Your task to perform on an android device: set the timer Image 0: 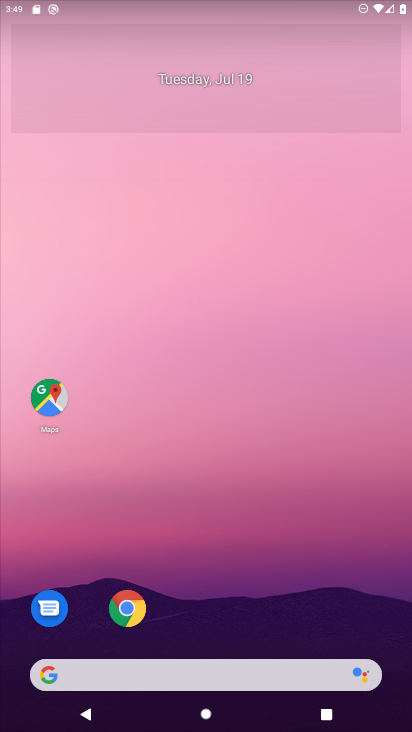
Step 0: drag from (272, 616) to (188, 17)
Your task to perform on an android device: set the timer Image 1: 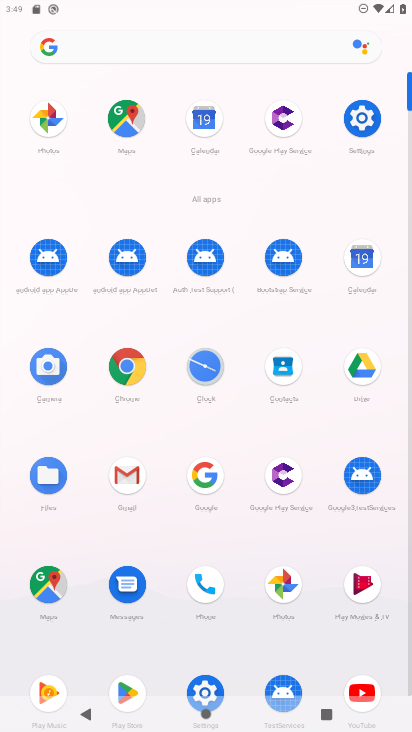
Step 1: click (209, 359)
Your task to perform on an android device: set the timer Image 2: 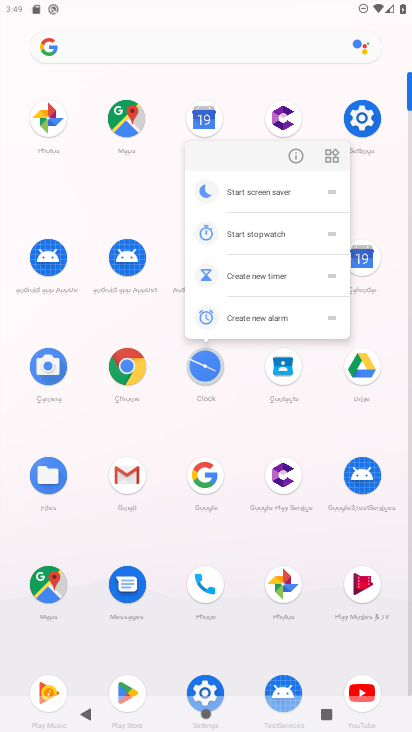
Step 2: click (210, 361)
Your task to perform on an android device: set the timer Image 3: 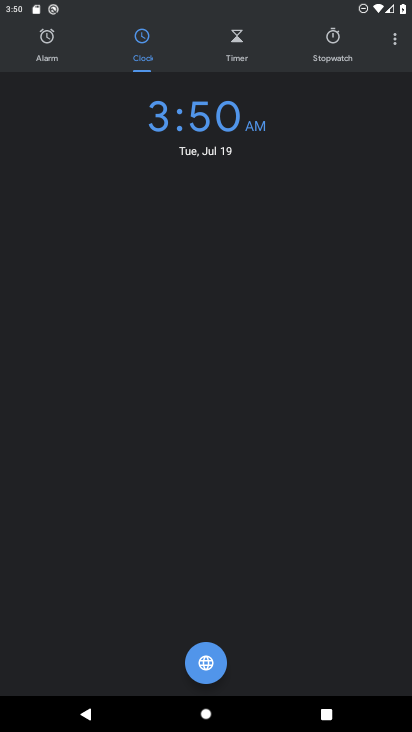
Step 3: click (224, 42)
Your task to perform on an android device: set the timer Image 4: 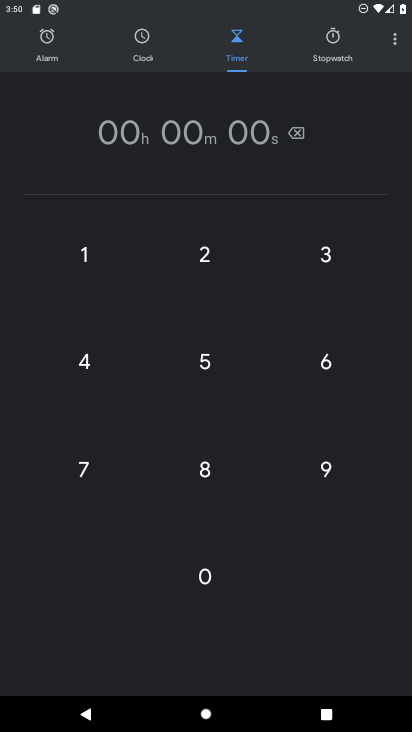
Step 4: click (213, 370)
Your task to perform on an android device: set the timer Image 5: 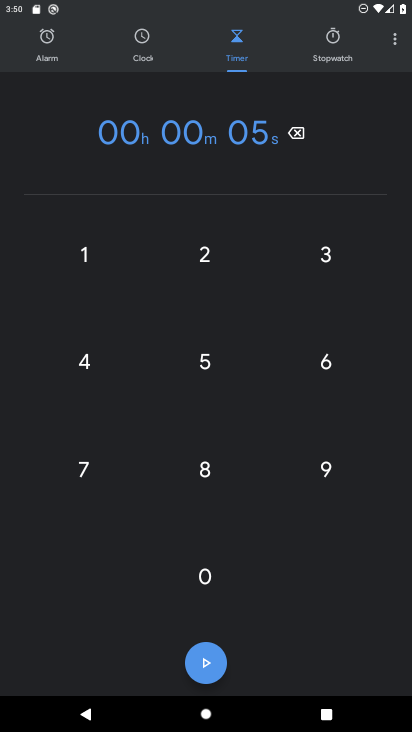
Step 5: task complete